Your task to perform on an android device: open app "Google Find My Device" Image 0: 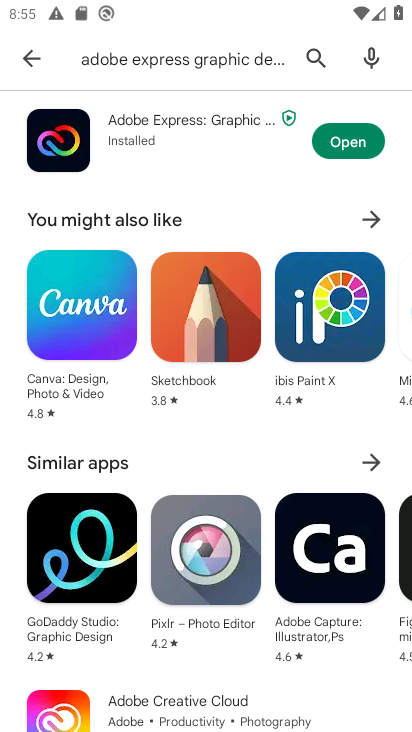
Step 0: click (299, 53)
Your task to perform on an android device: open app "Google Find My Device" Image 1: 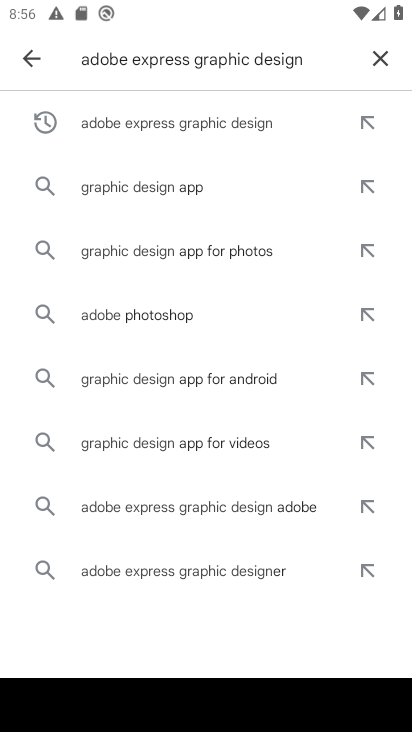
Step 1: click (385, 48)
Your task to perform on an android device: open app "Google Find My Device" Image 2: 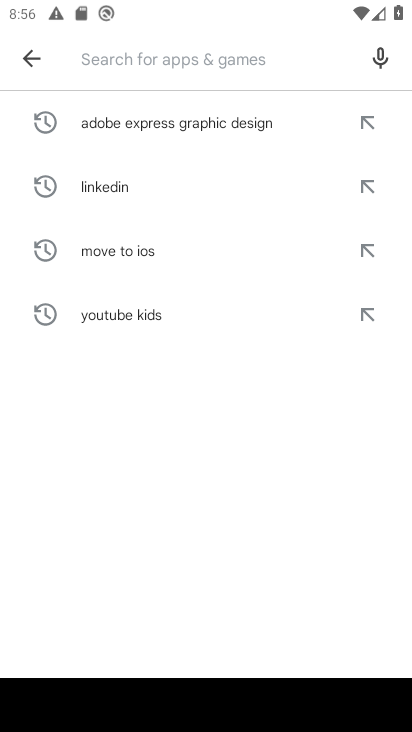
Step 2: type "Google Find My Device"
Your task to perform on an android device: open app "Google Find My Device" Image 3: 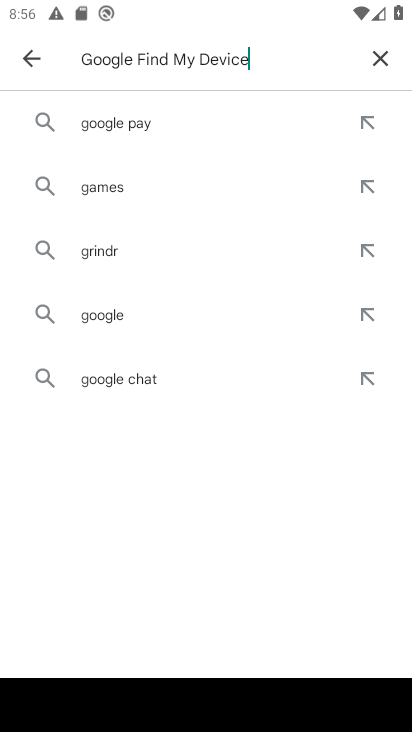
Step 3: type ""
Your task to perform on an android device: open app "Google Find My Device" Image 4: 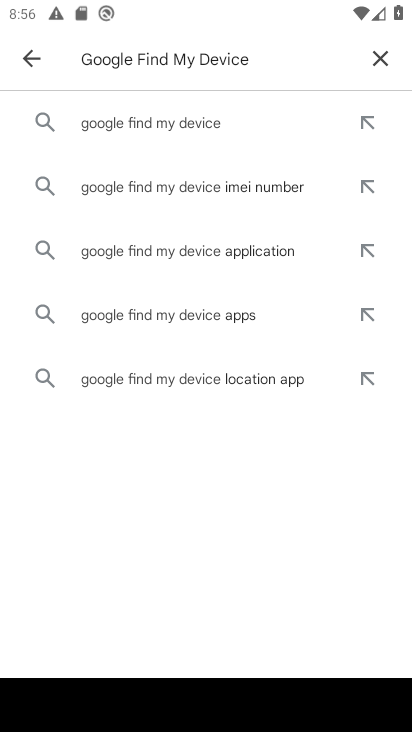
Step 4: click (211, 118)
Your task to perform on an android device: open app "Google Find My Device" Image 5: 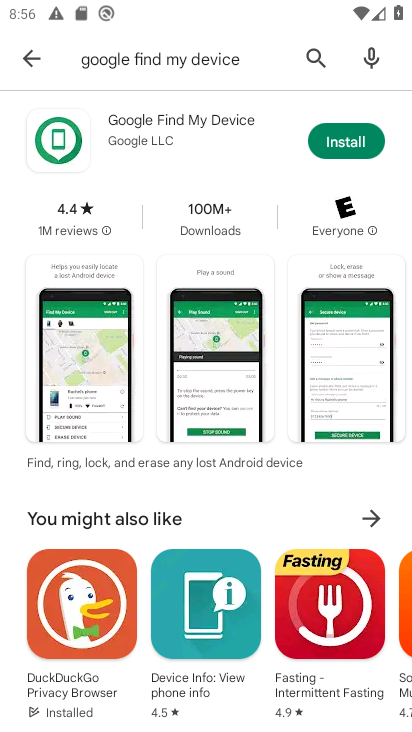
Step 5: task complete